Your task to perform on an android device: What's the weather today? Image 0: 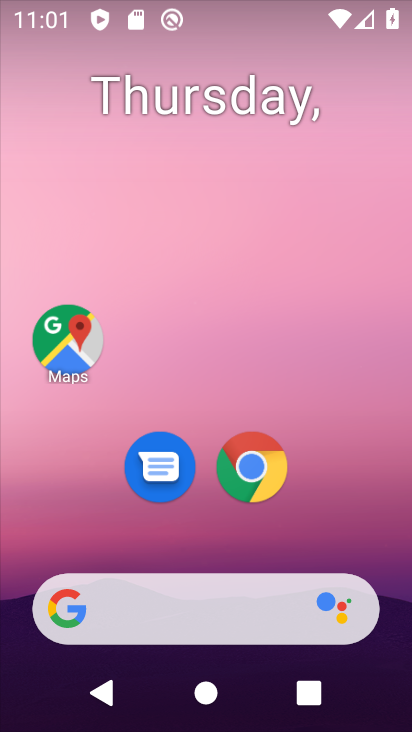
Step 0: drag from (182, 563) to (206, 206)
Your task to perform on an android device: What's the weather today? Image 1: 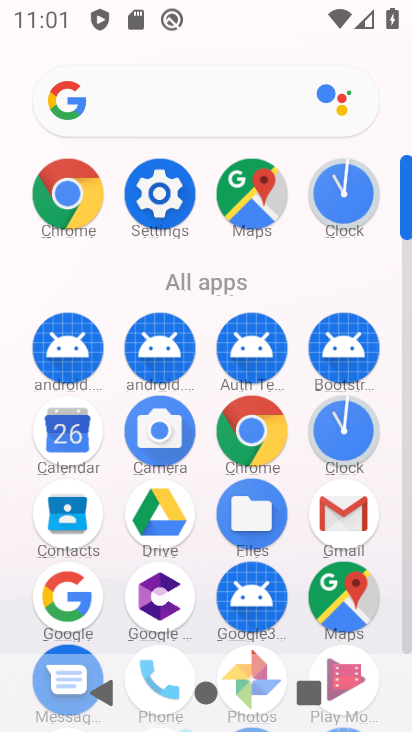
Step 1: drag from (220, 273) to (219, 105)
Your task to perform on an android device: What's the weather today? Image 2: 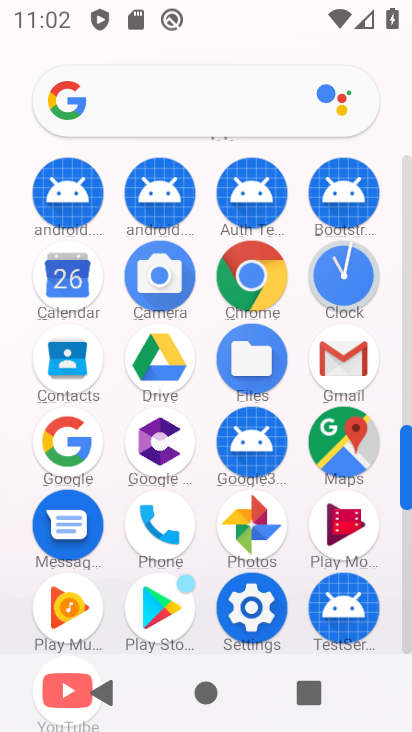
Step 2: click (73, 453)
Your task to perform on an android device: What's the weather today? Image 3: 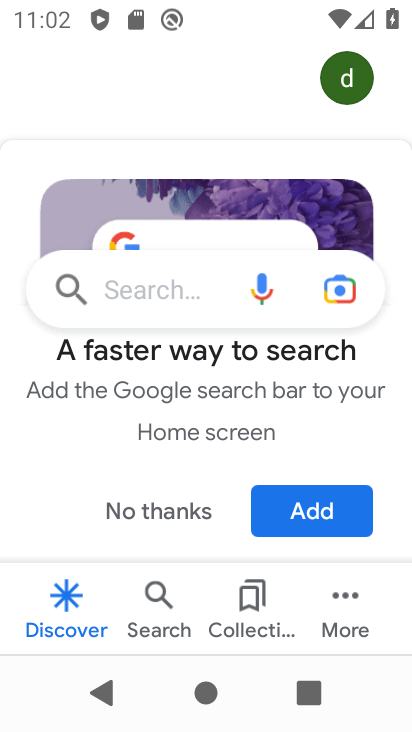
Step 3: click (76, 593)
Your task to perform on an android device: What's the weather today? Image 4: 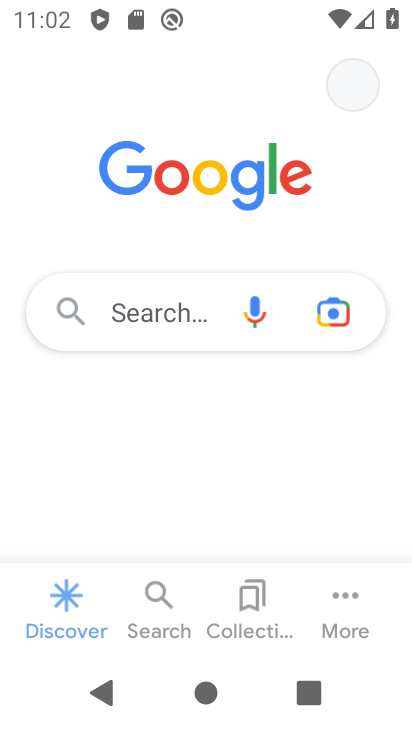
Step 4: drag from (177, 510) to (123, 622)
Your task to perform on an android device: What's the weather today? Image 5: 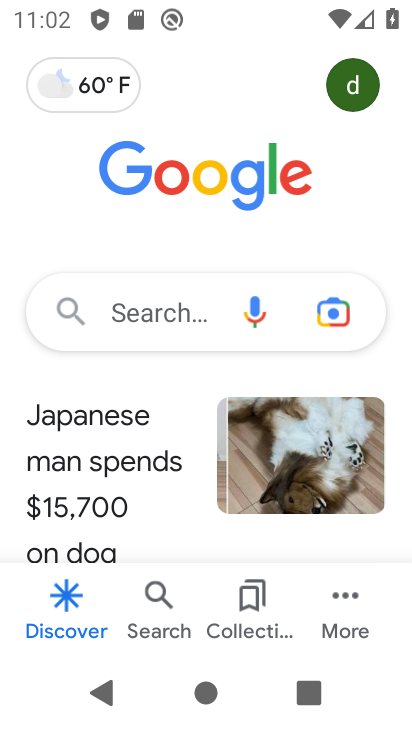
Step 5: drag from (128, 487) to (112, 271)
Your task to perform on an android device: What's the weather today? Image 6: 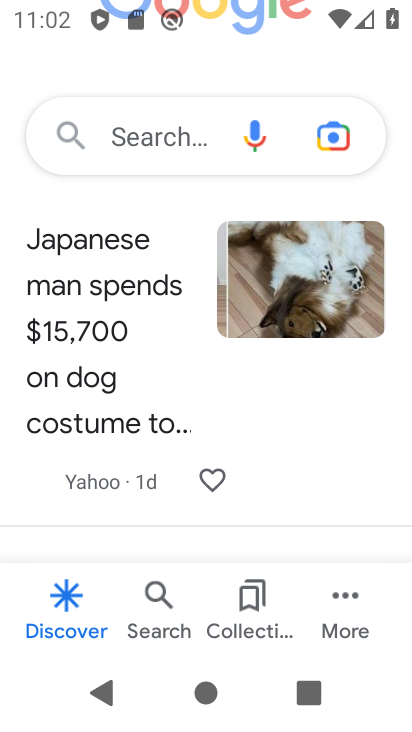
Step 6: drag from (125, 478) to (96, 535)
Your task to perform on an android device: What's the weather today? Image 7: 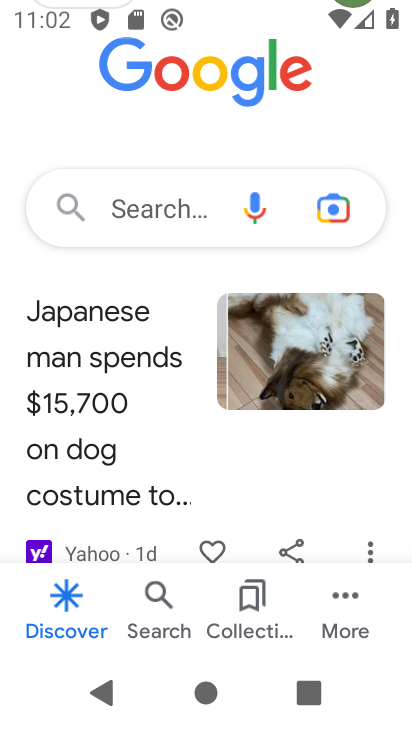
Step 7: drag from (114, 291) to (122, 573)
Your task to perform on an android device: What's the weather today? Image 8: 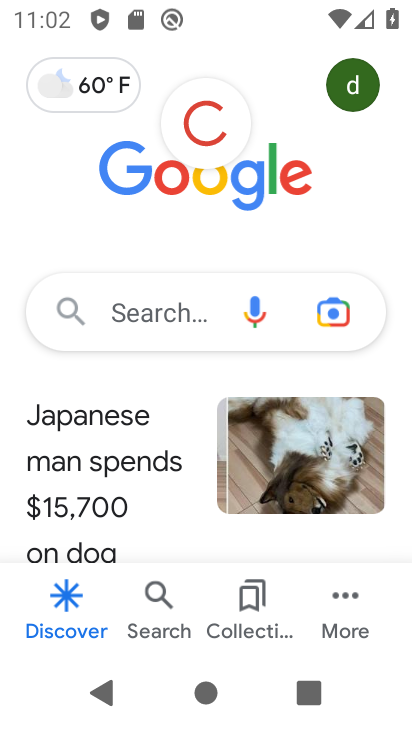
Step 8: click (83, 94)
Your task to perform on an android device: What's the weather today? Image 9: 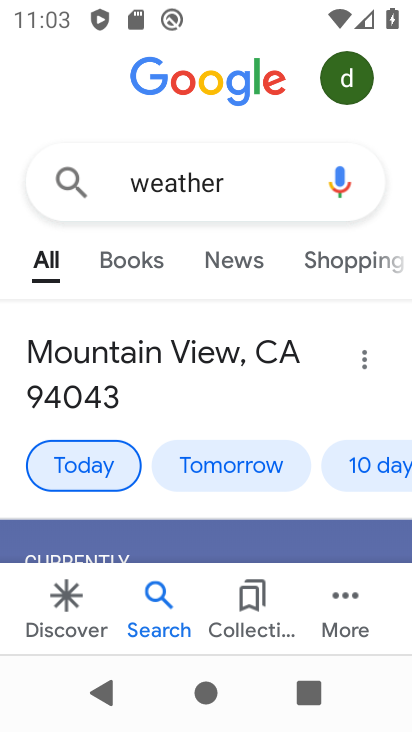
Step 9: task complete